Your task to perform on an android device: change the upload size in google photos Image 0: 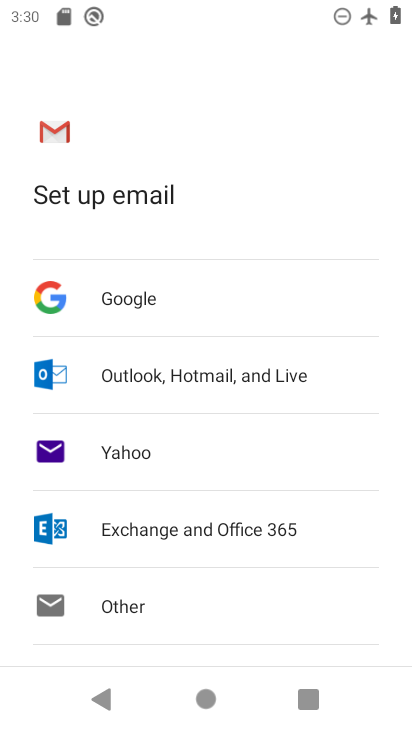
Step 0: press home button
Your task to perform on an android device: change the upload size in google photos Image 1: 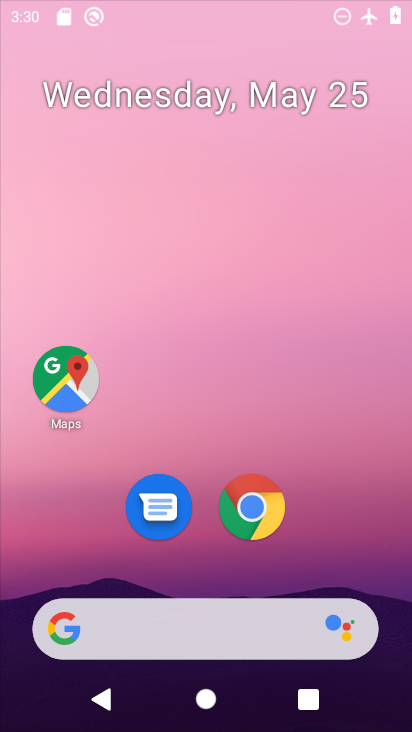
Step 1: drag from (243, 637) to (260, 298)
Your task to perform on an android device: change the upload size in google photos Image 2: 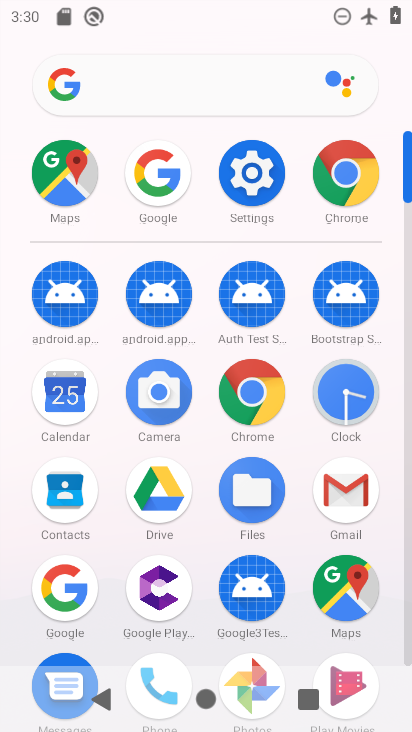
Step 2: drag from (242, 506) to (276, 252)
Your task to perform on an android device: change the upload size in google photos Image 3: 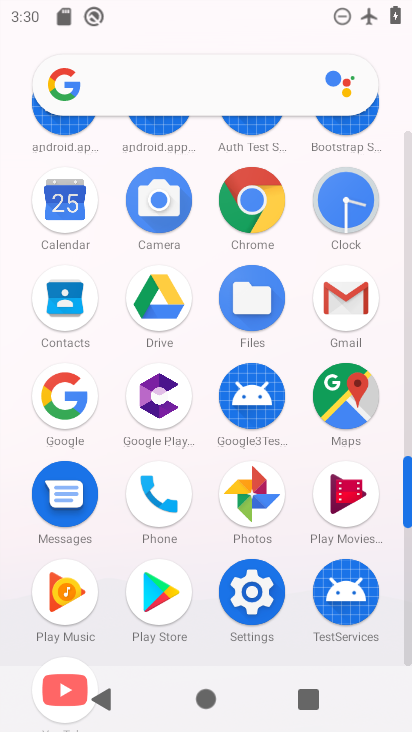
Step 3: click (260, 512)
Your task to perform on an android device: change the upload size in google photos Image 4: 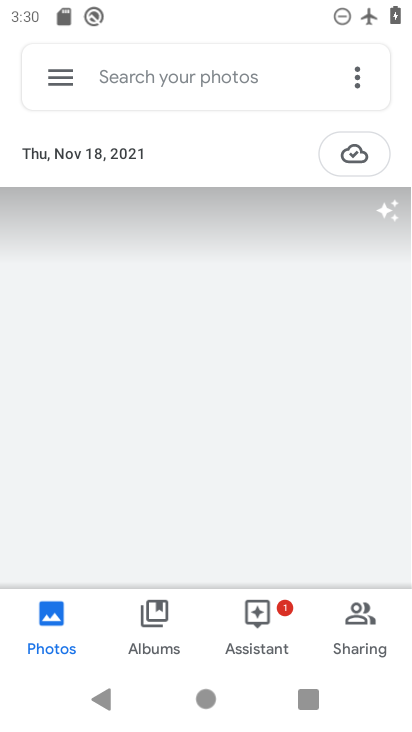
Step 4: click (71, 80)
Your task to perform on an android device: change the upload size in google photos Image 5: 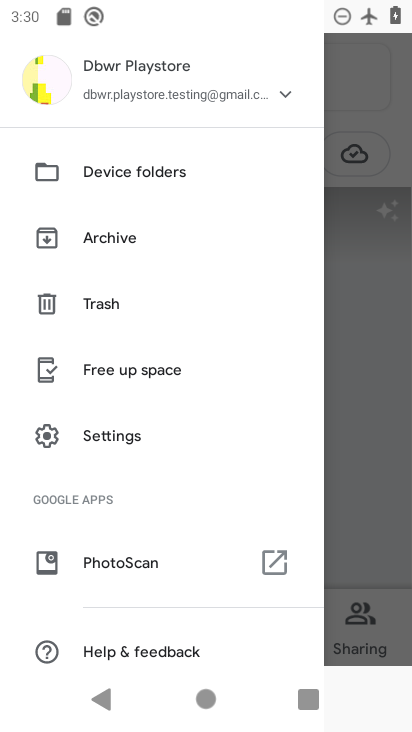
Step 5: click (124, 426)
Your task to perform on an android device: change the upload size in google photos Image 6: 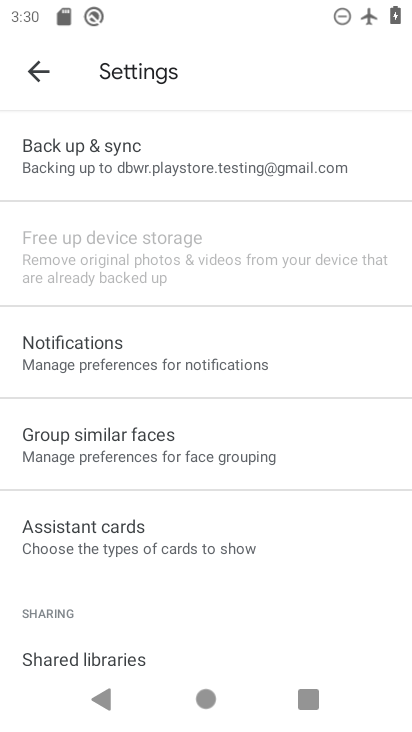
Step 6: click (183, 175)
Your task to perform on an android device: change the upload size in google photos Image 7: 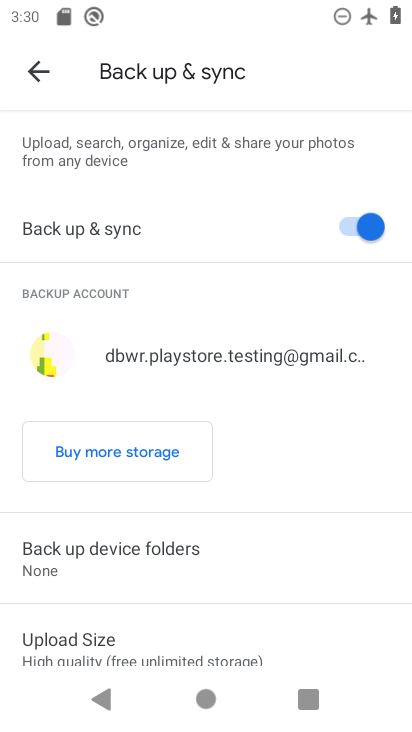
Step 7: click (175, 651)
Your task to perform on an android device: change the upload size in google photos Image 8: 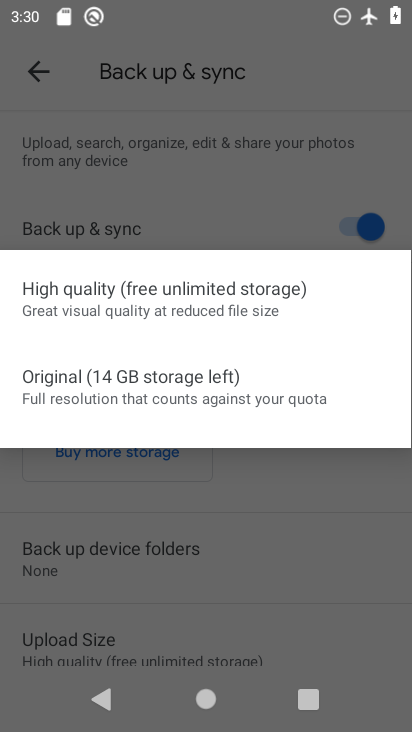
Step 8: click (178, 391)
Your task to perform on an android device: change the upload size in google photos Image 9: 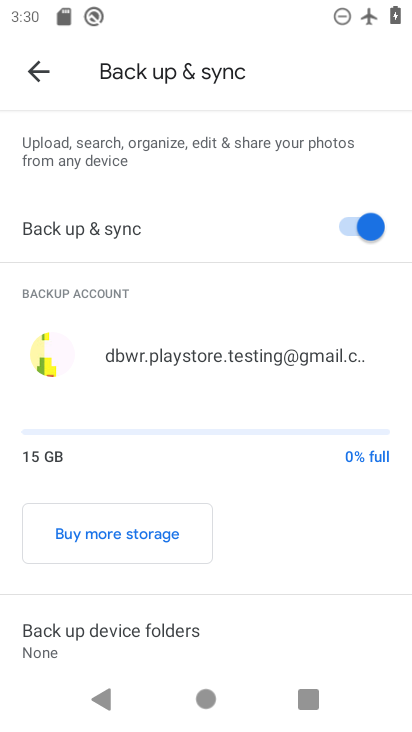
Step 9: task complete